Your task to perform on an android device: refresh tabs in the chrome app Image 0: 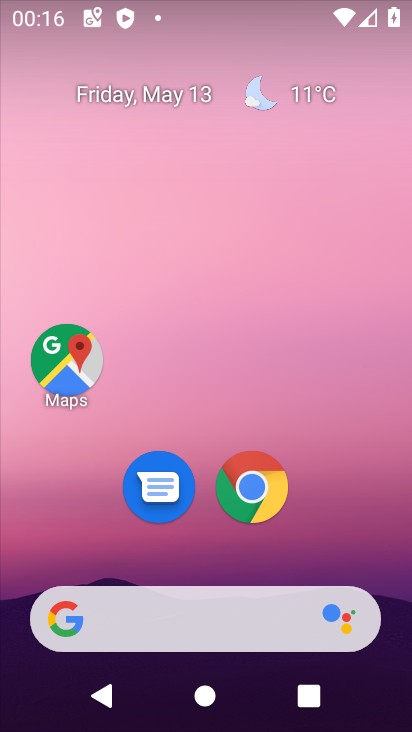
Step 0: click (260, 493)
Your task to perform on an android device: refresh tabs in the chrome app Image 1: 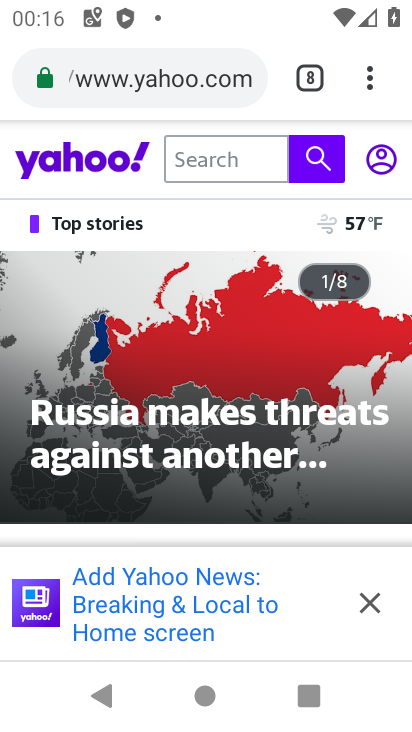
Step 1: click (378, 69)
Your task to perform on an android device: refresh tabs in the chrome app Image 2: 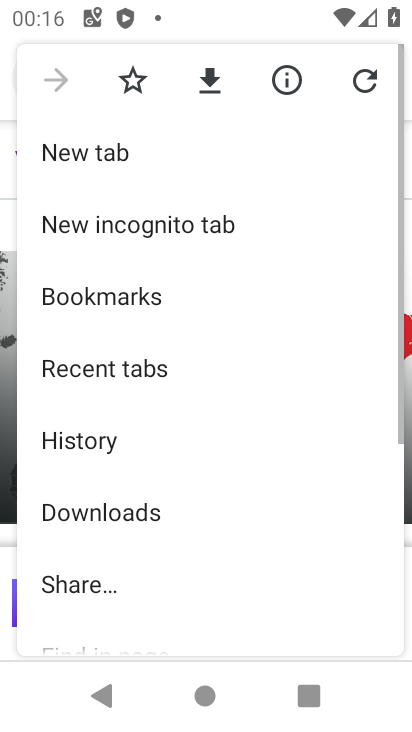
Step 2: click (375, 77)
Your task to perform on an android device: refresh tabs in the chrome app Image 3: 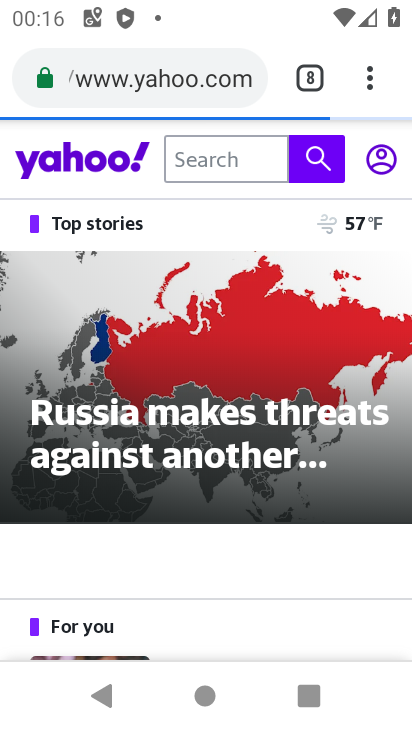
Step 3: task complete